Your task to perform on an android device: make emails show in primary in the gmail app Image 0: 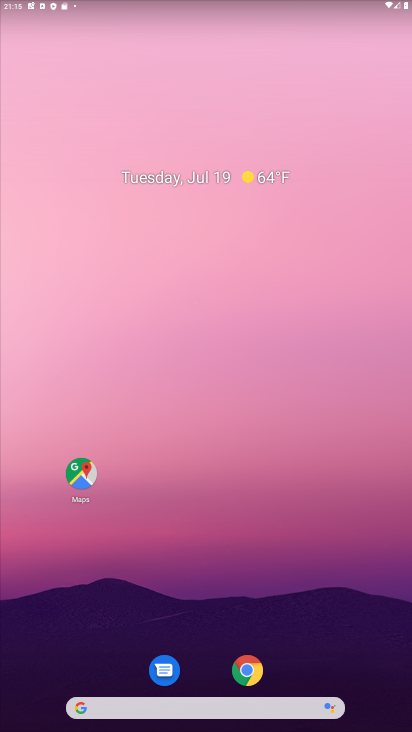
Step 0: drag from (222, 729) to (304, 237)
Your task to perform on an android device: make emails show in primary in the gmail app Image 1: 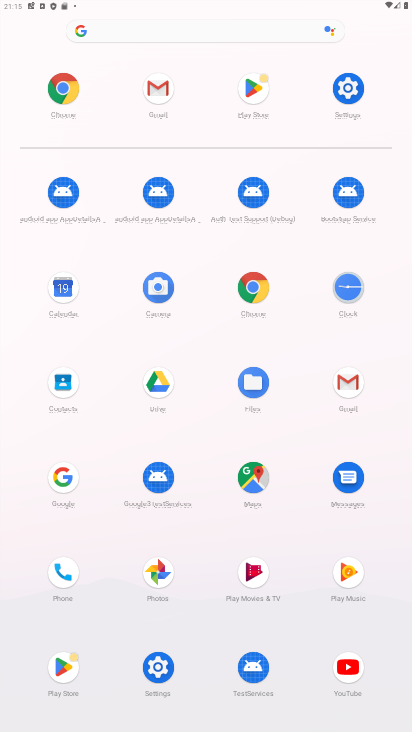
Step 1: click (162, 95)
Your task to perform on an android device: make emails show in primary in the gmail app Image 2: 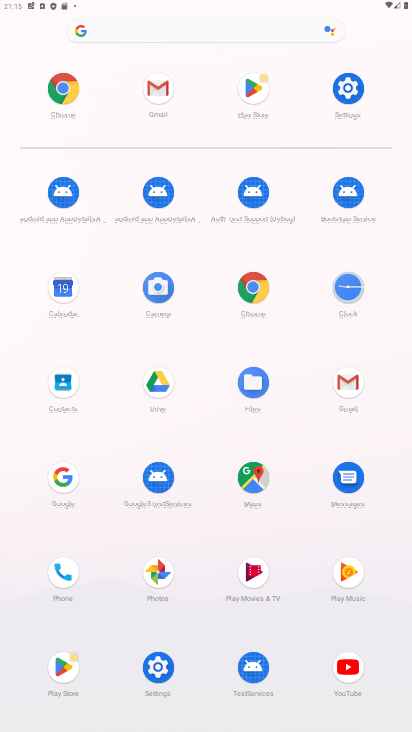
Step 2: click (162, 95)
Your task to perform on an android device: make emails show in primary in the gmail app Image 3: 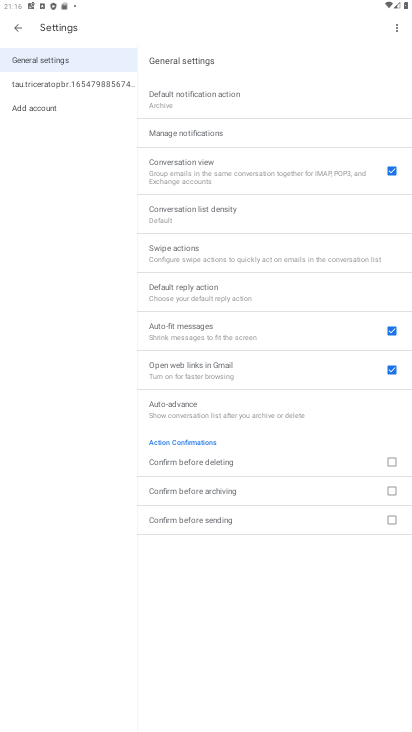
Step 3: click (72, 82)
Your task to perform on an android device: make emails show in primary in the gmail app Image 4: 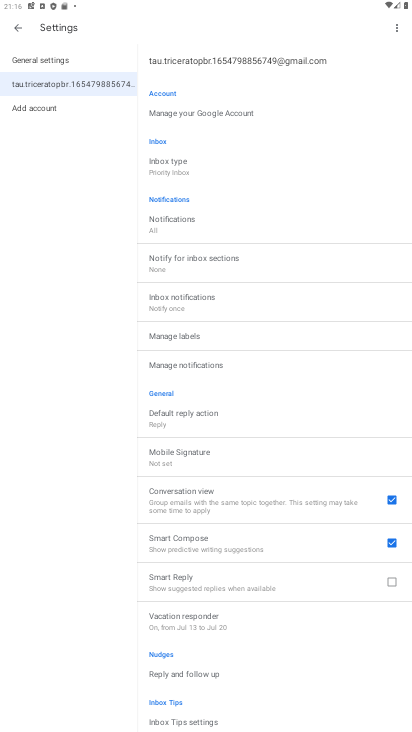
Step 4: click (183, 160)
Your task to perform on an android device: make emails show in primary in the gmail app Image 5: 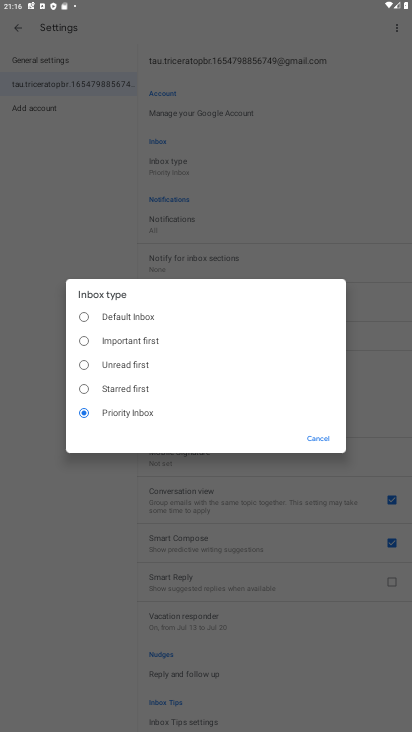
Step 5: click (132, 318)
Your task to perform on an android device: make emails show in primary in the gmail app Image 6: 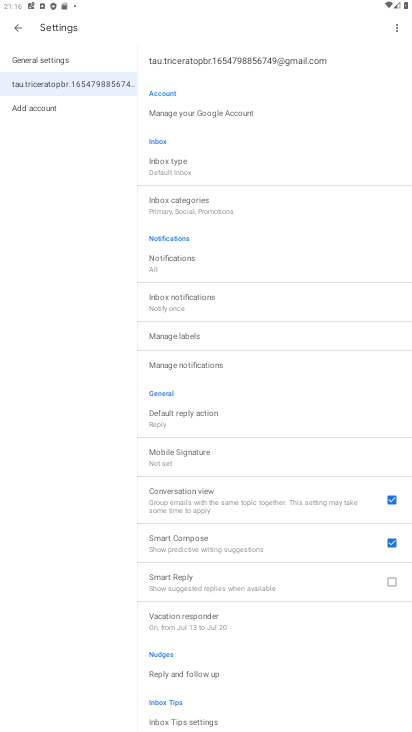
Step 6: click (218, 201)
Your task to perform on an android device: make emails show in primary in the gmail app Image 7: 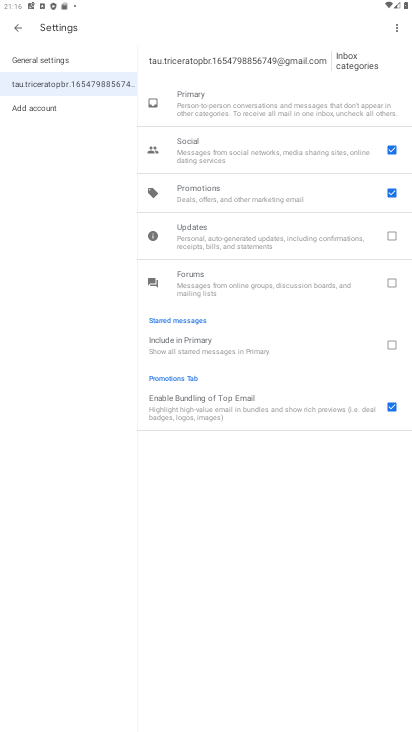
Step 7: click (394, 195)
Your task to perform on an android device: make emails show in primary in the gmail app Image 8: 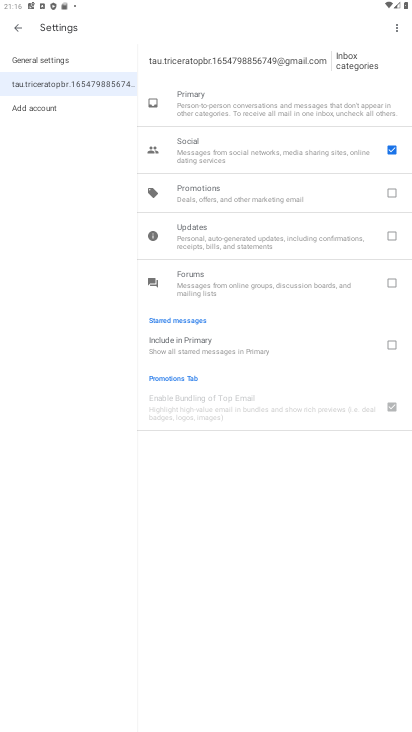
Step 8: click (393, 145)
Your task to perform on an android device: make emails show in primary in the gmail app Image 9: 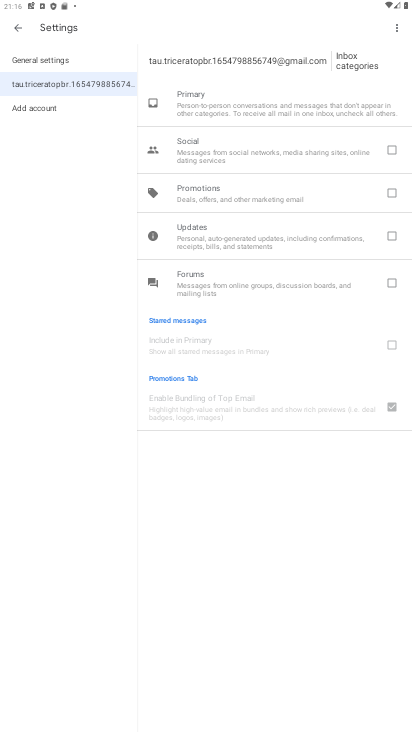
Step 9: task complete